Your task to perform on an android device: open app "Facebook" (install if not already installed) and go to login screen Image 0: 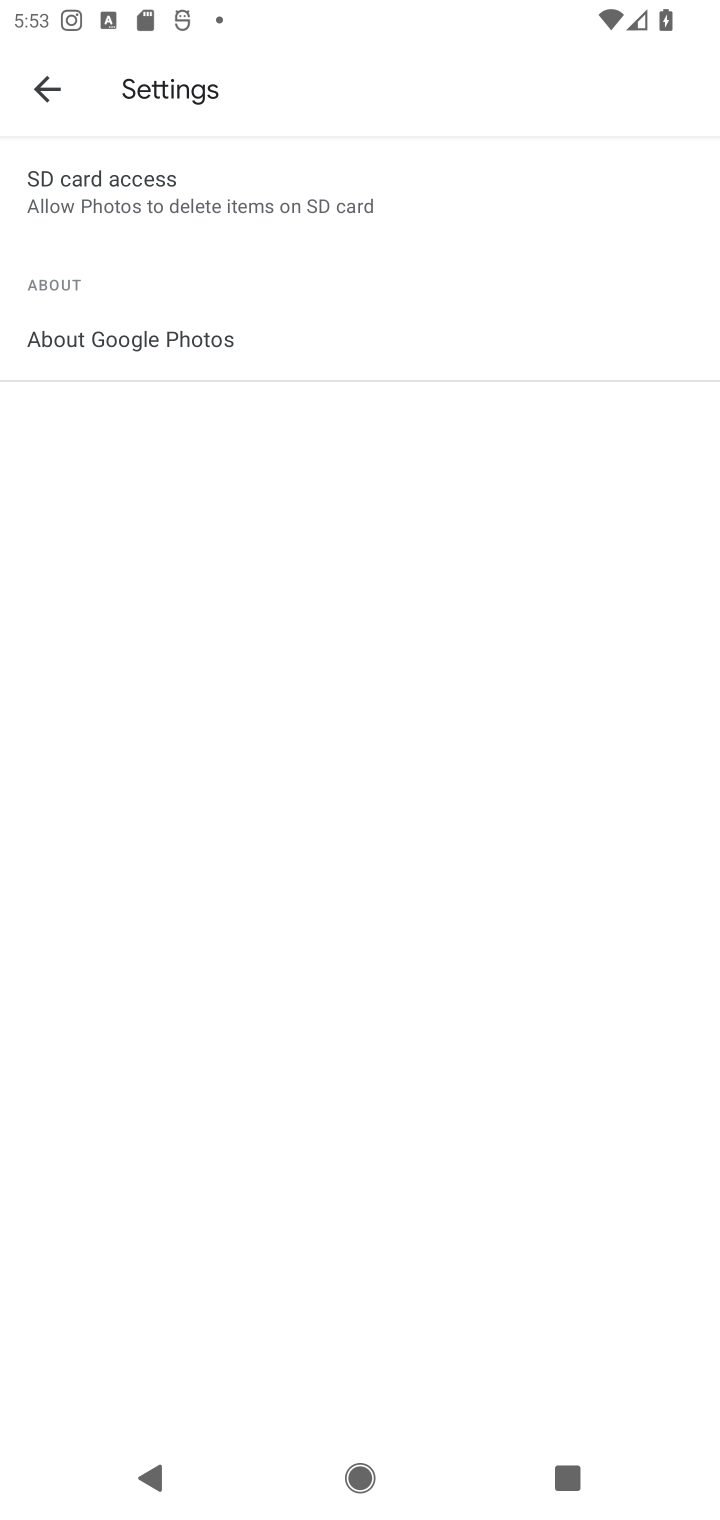
Step 0: press home button
Your task to perform on an android device: open app "Facebook" (install if not already installed) and go to login screen Image 1: 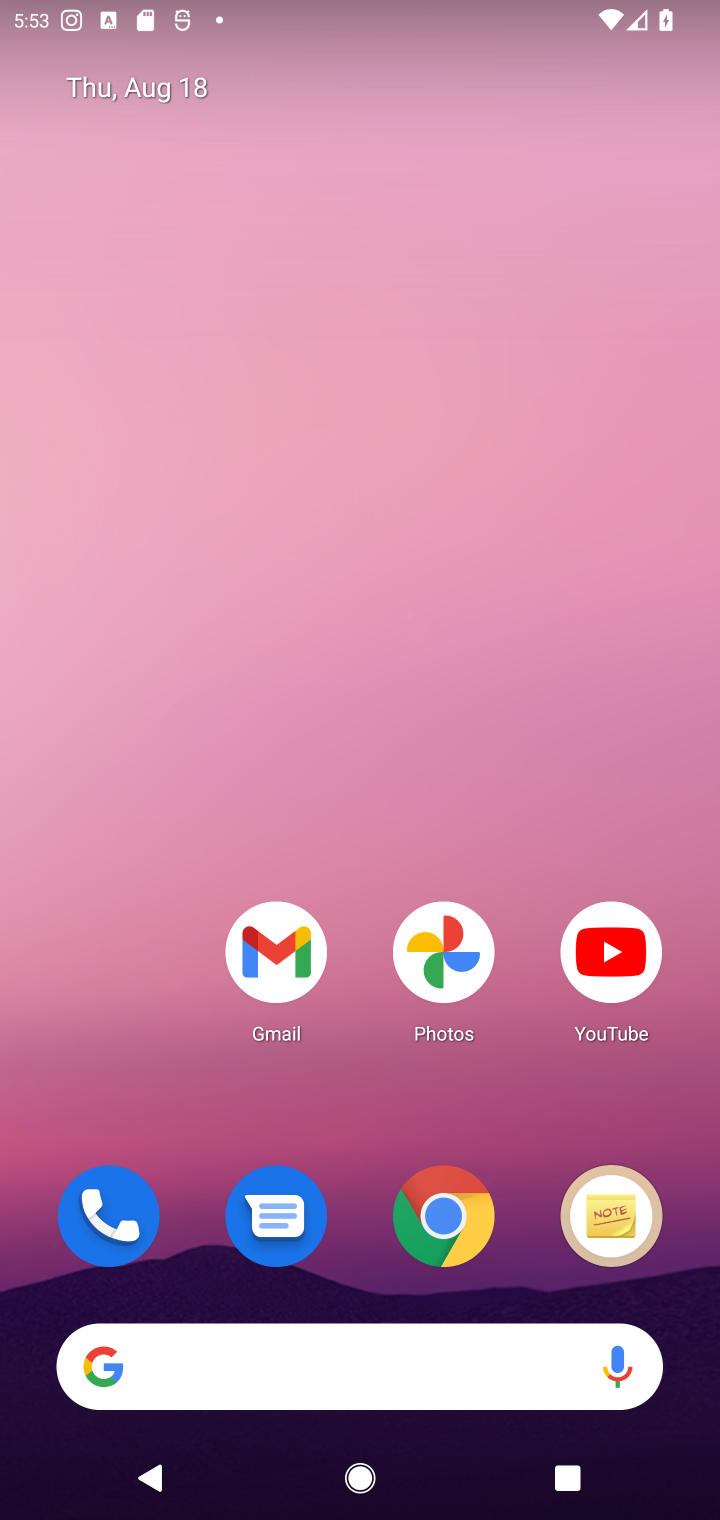
Step 1: drag from (346, 923) to (364, 272)
Your task to perform on an android device: open app "Facebook" (install if not already installed) and go to login screen Image 2: 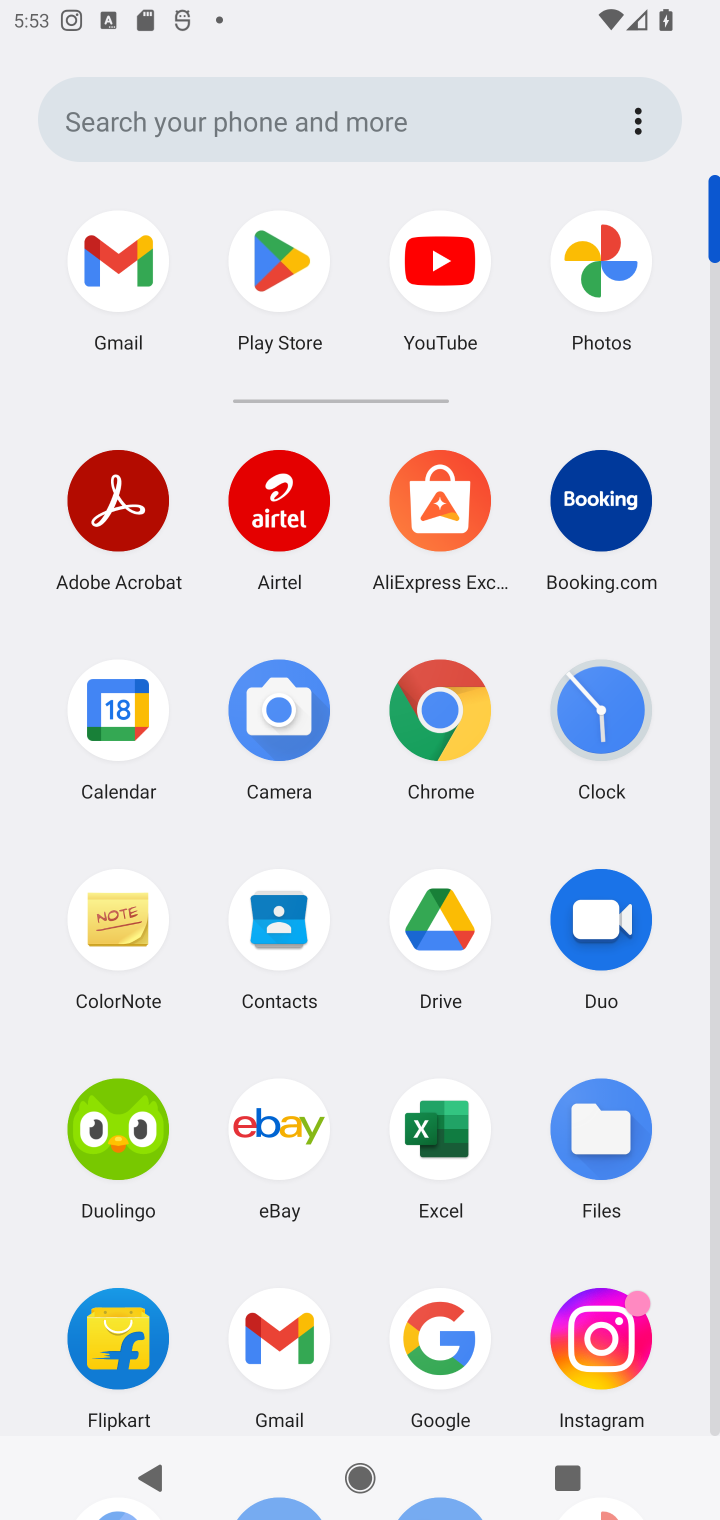
Step 2: click (304, 259)
Your task to perform on an android device: open app "Facebook" (install if not already installed) and go to login screen Image 3: 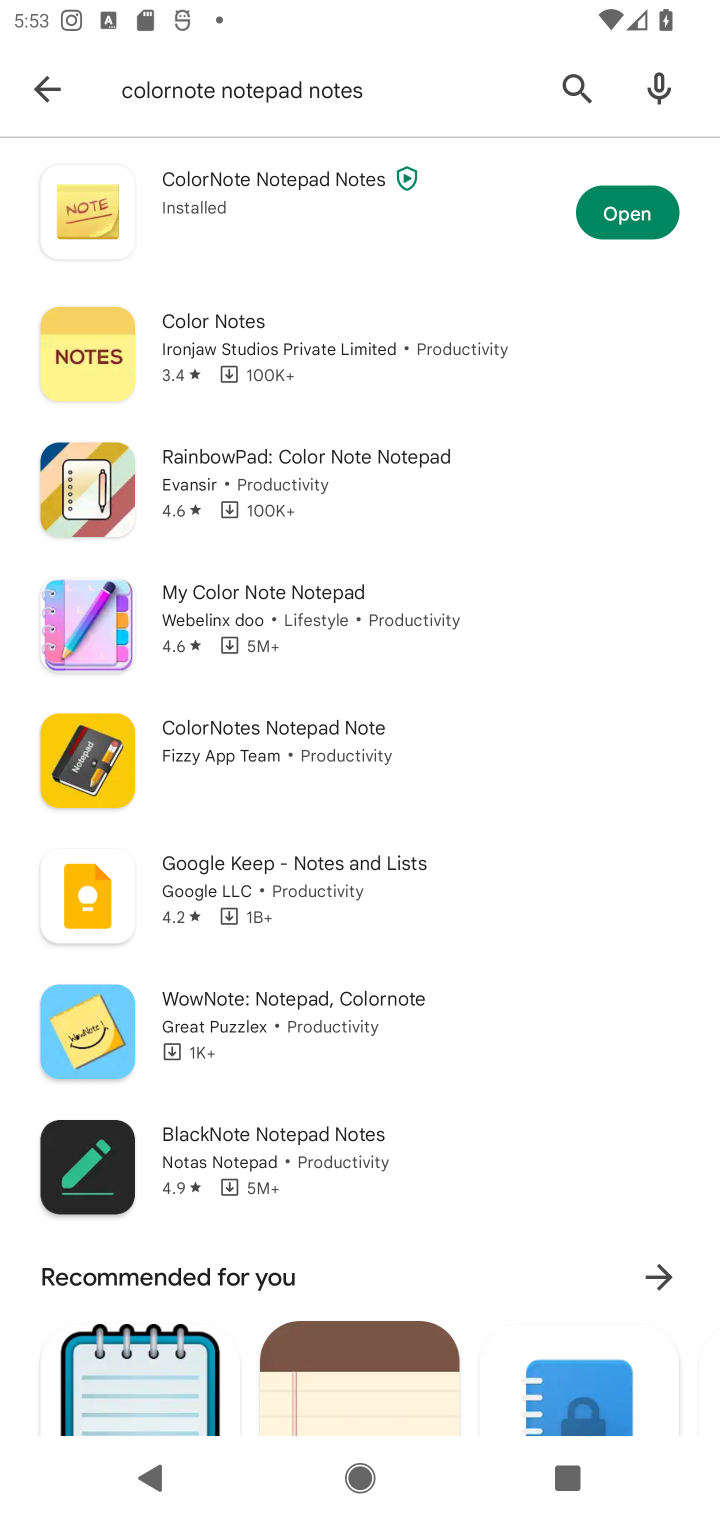
Step 3: click (590, 97)
Your task to perform on an android device: open app "Facebook" (install if not already installed) and go to login screen Image 4: 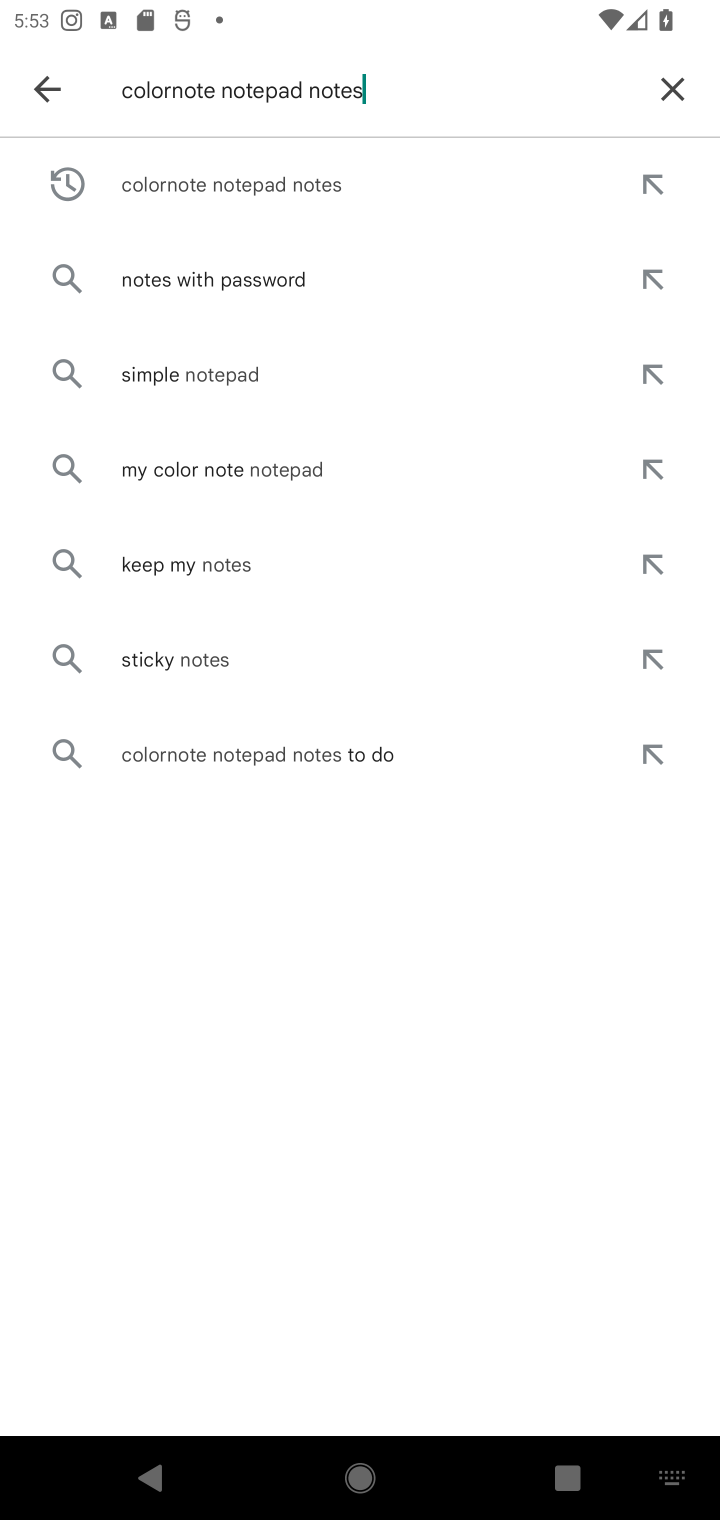
Step 4: click (652, 92)
Your task to perform on an android device: open app "Facebook" (install if not already installed) and go to login screen Image 5: 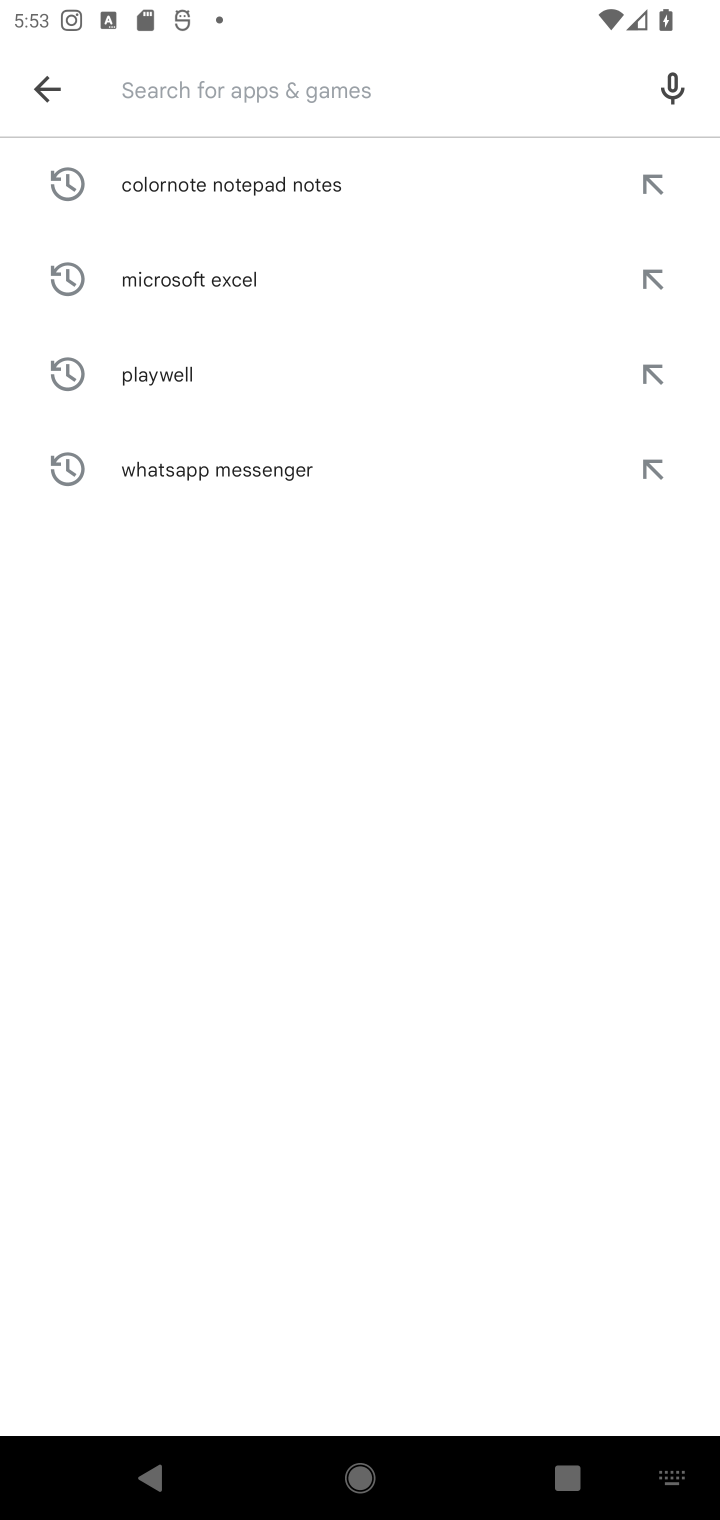
Step 5: type "Facebook"
Your task to perform on an android device: open app "Facebook" (install if not already installed) and go to login screen Image 6: 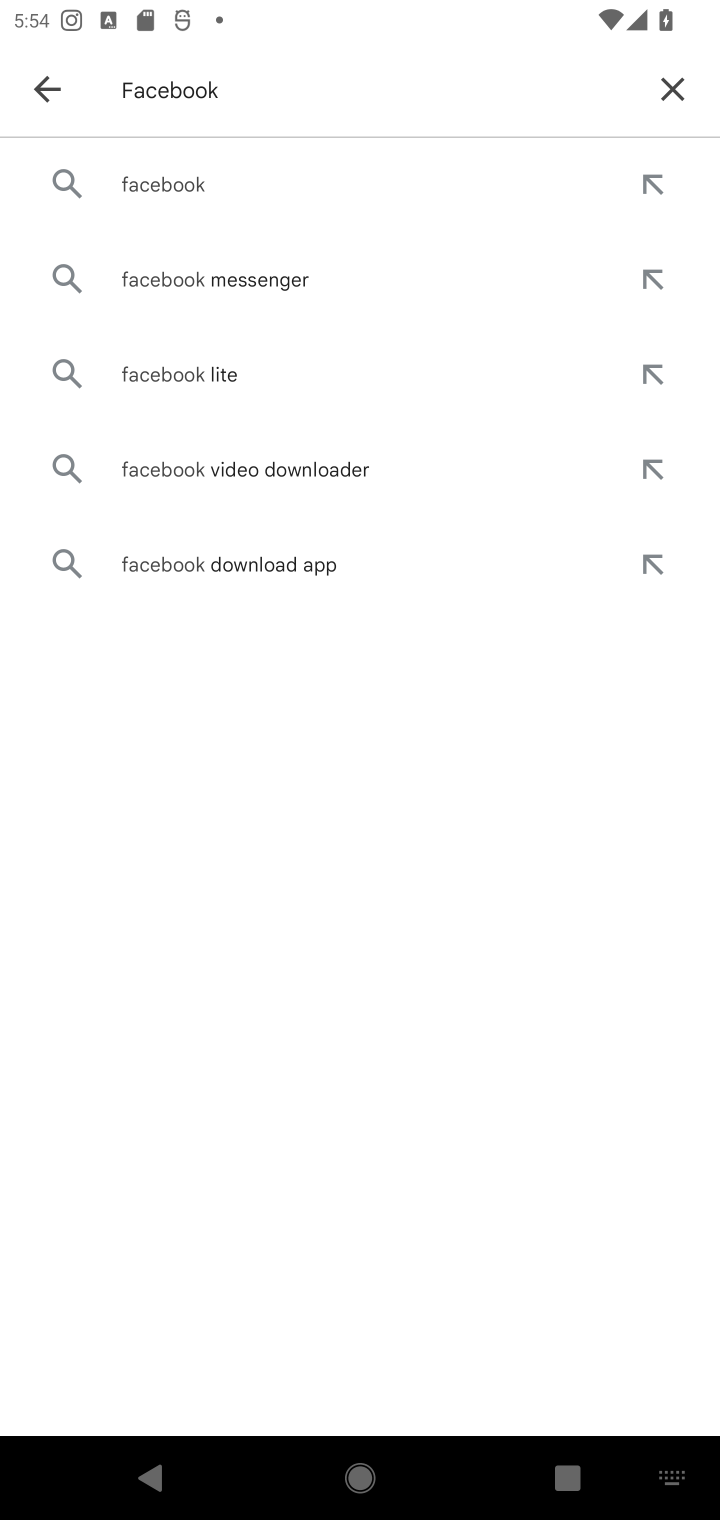
Step 6: click (310, 192)
Your task to perform on an android device: open app "Facebook" (install if not already installed) and go to login screen Image 7: 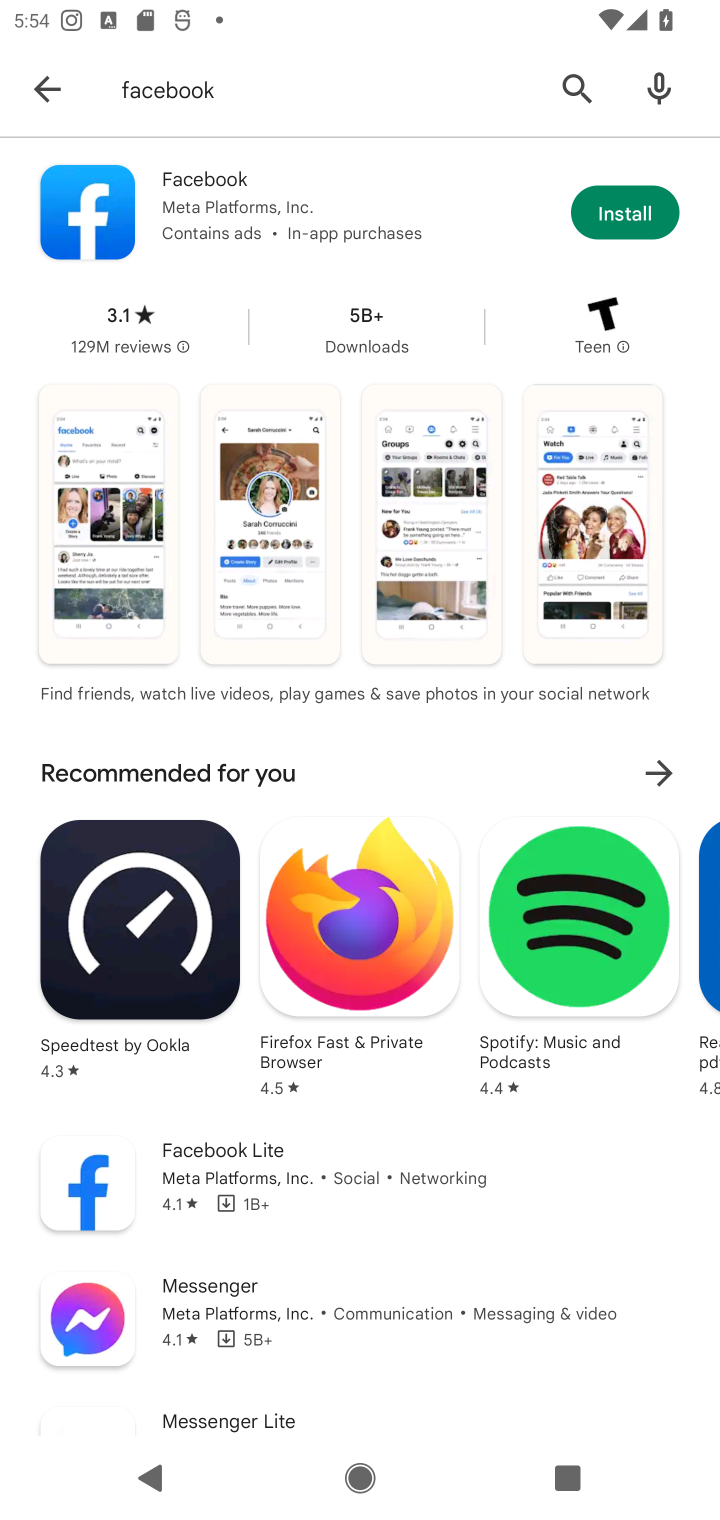
Step 7: click (634, 216)
Your task to perform on an android device: open app "Facebook" (install if not already installed) and go to login screen Image 8: 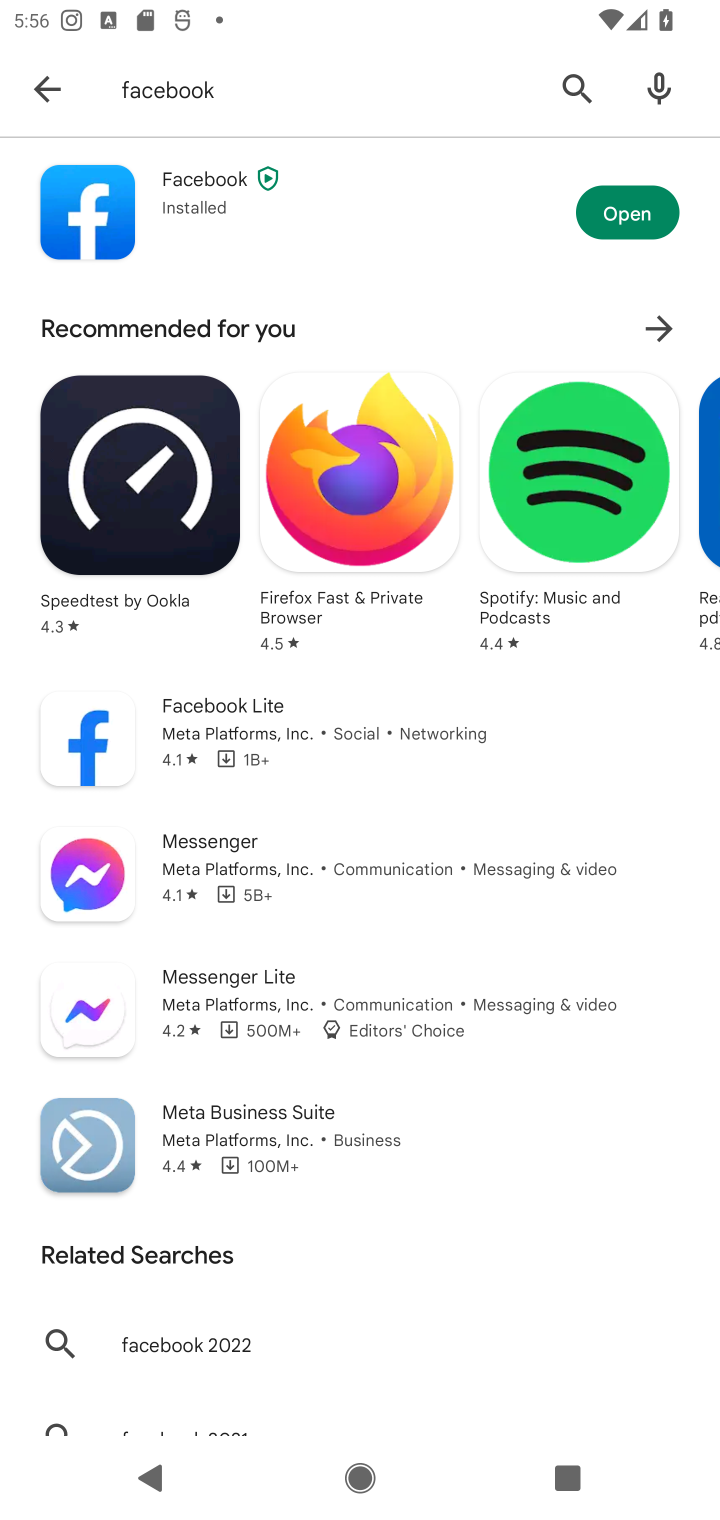
Step 8: click (656, 221)
Your task to perform on an android device: open app "Facebook" (install if not already installed) and go to login screen Image 9: 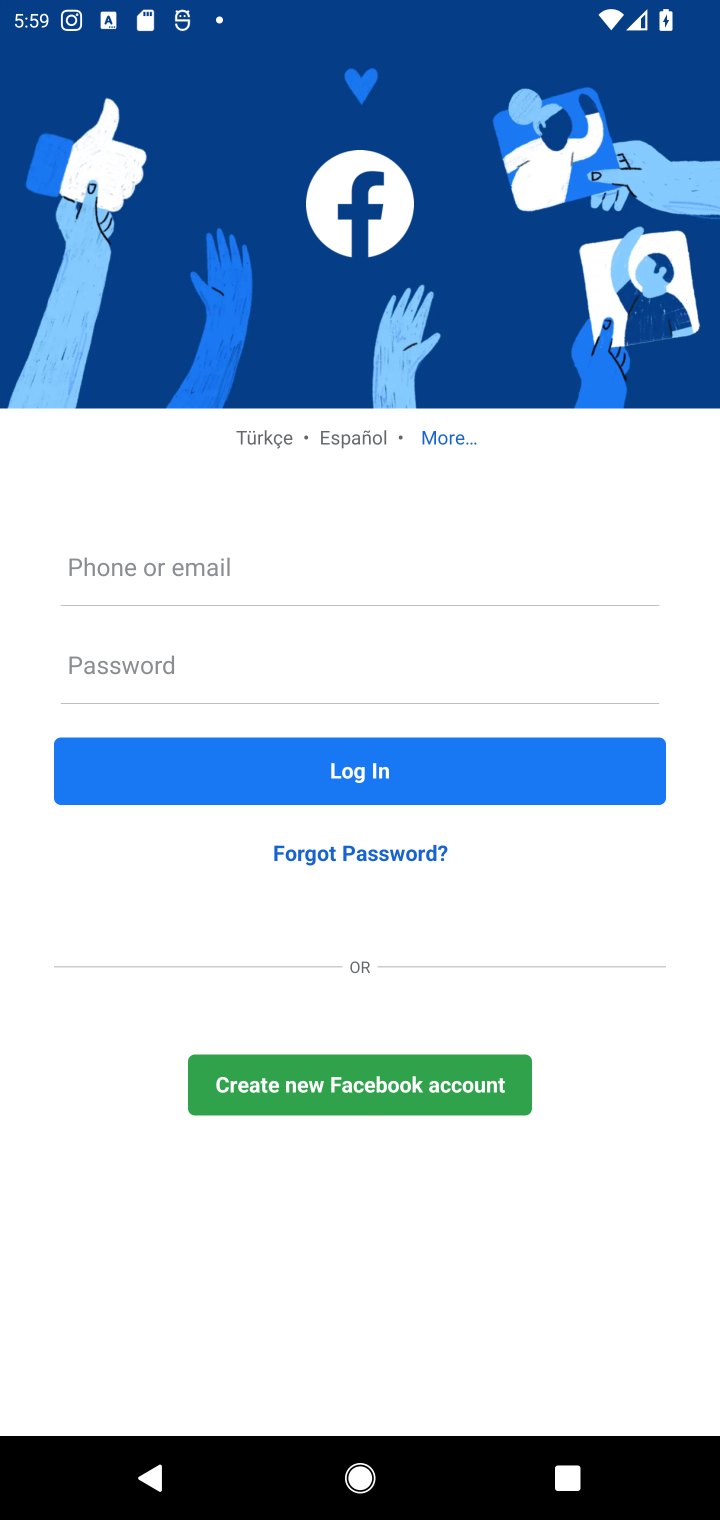
Step 9: press home button
Your task to perform on an android device: open app "Facebook" (install if not already installed) and go to login screen Image 10: 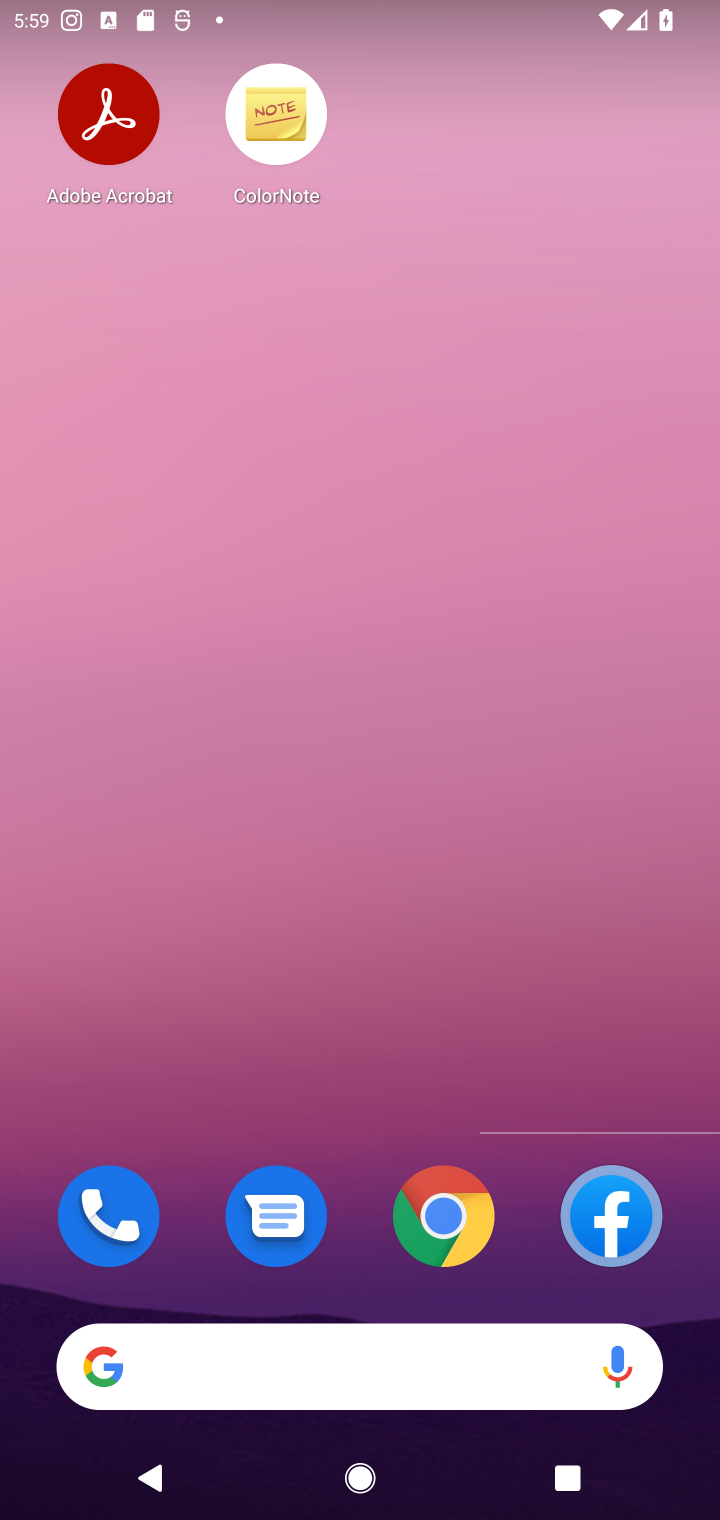
Step 10: drag from (355, 1092) to (415, 488)
Your task to perform on an android device: open app "Facebook" (install if not already installed) and go to login screen Image 11: 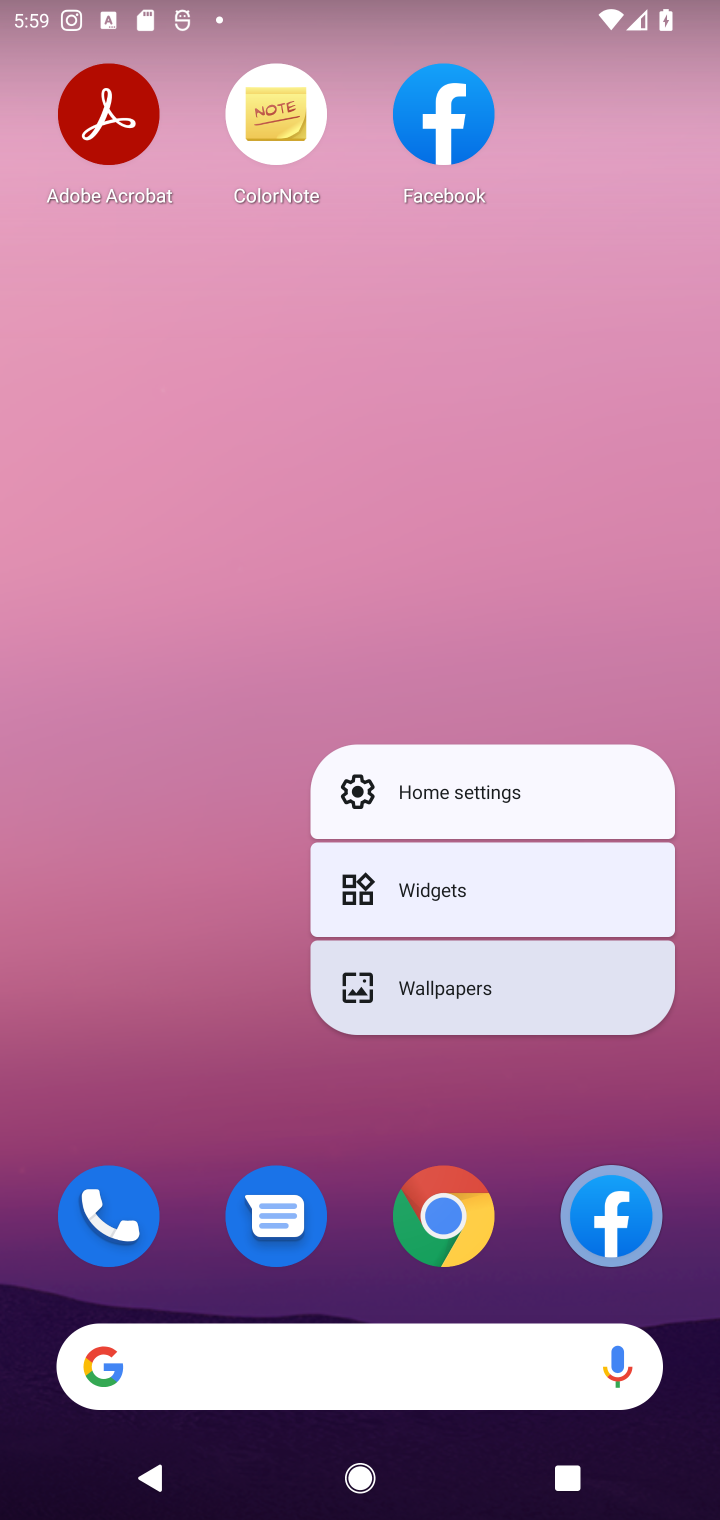
Step 11: click (380, 520)
Your task to perform on an android device: open app "Facebook" (install if not already installed) and go to login screen Image 12: 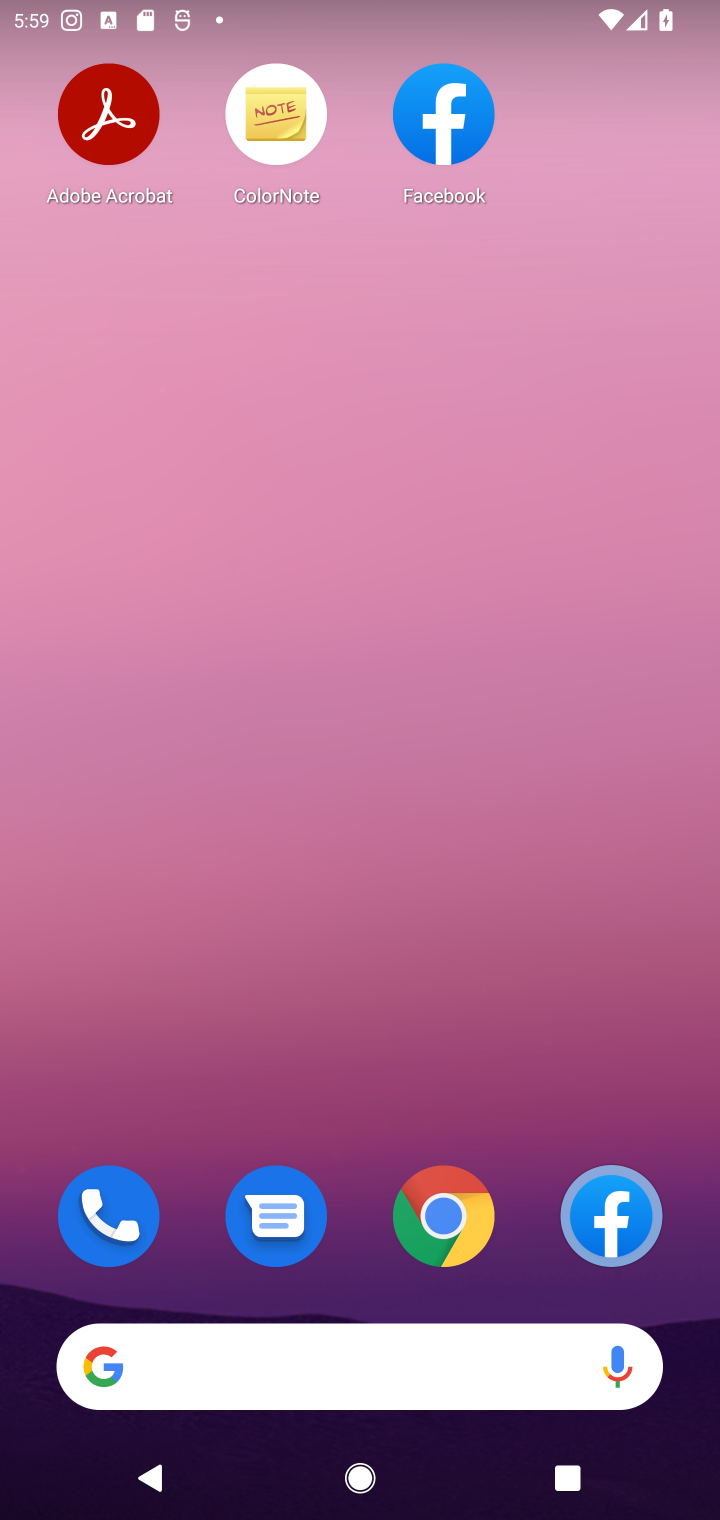
Step 12: drag from (360, 1052) to (443, 142)
Your task to perform on an android device: open app "Facebook" (install if not already installed) and go to login screen Image 13: 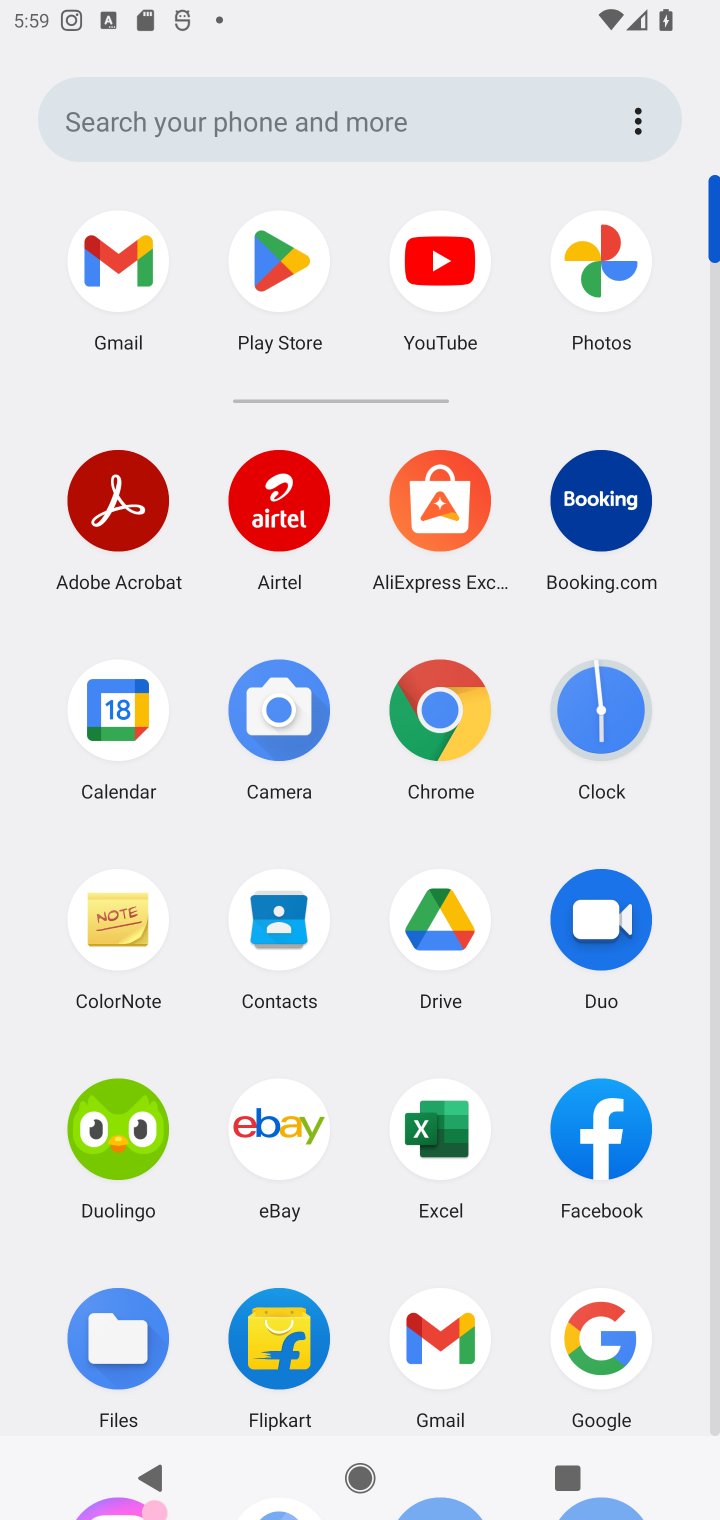
Step 13: click (319, 260)
Your task to perform on an android device: open app "Facebook" (install if not already installed) and go to login screen Image 14: 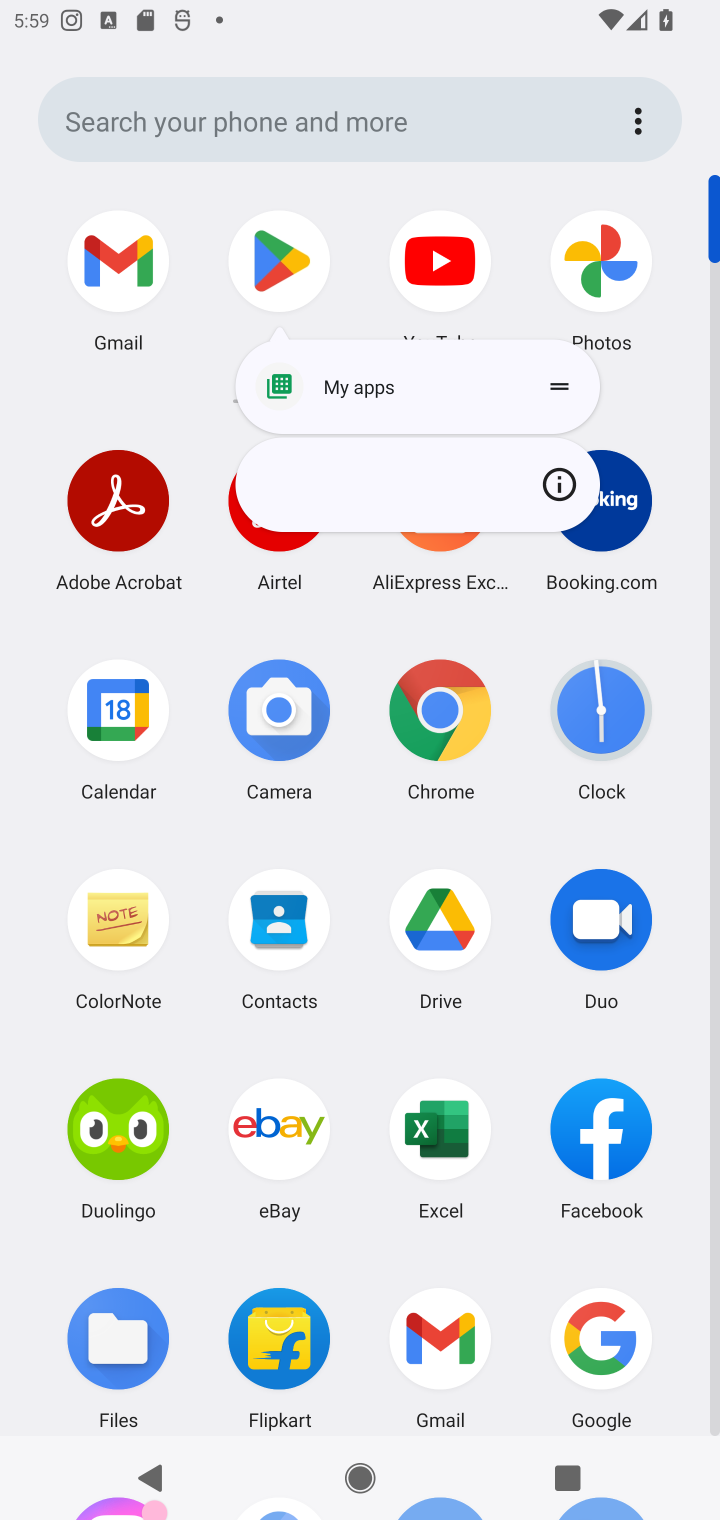
Step 14: click (297, 253)
Your task to perform on an android device: open app "Facebook" (install if not already installed) and go to login screen Image 15: 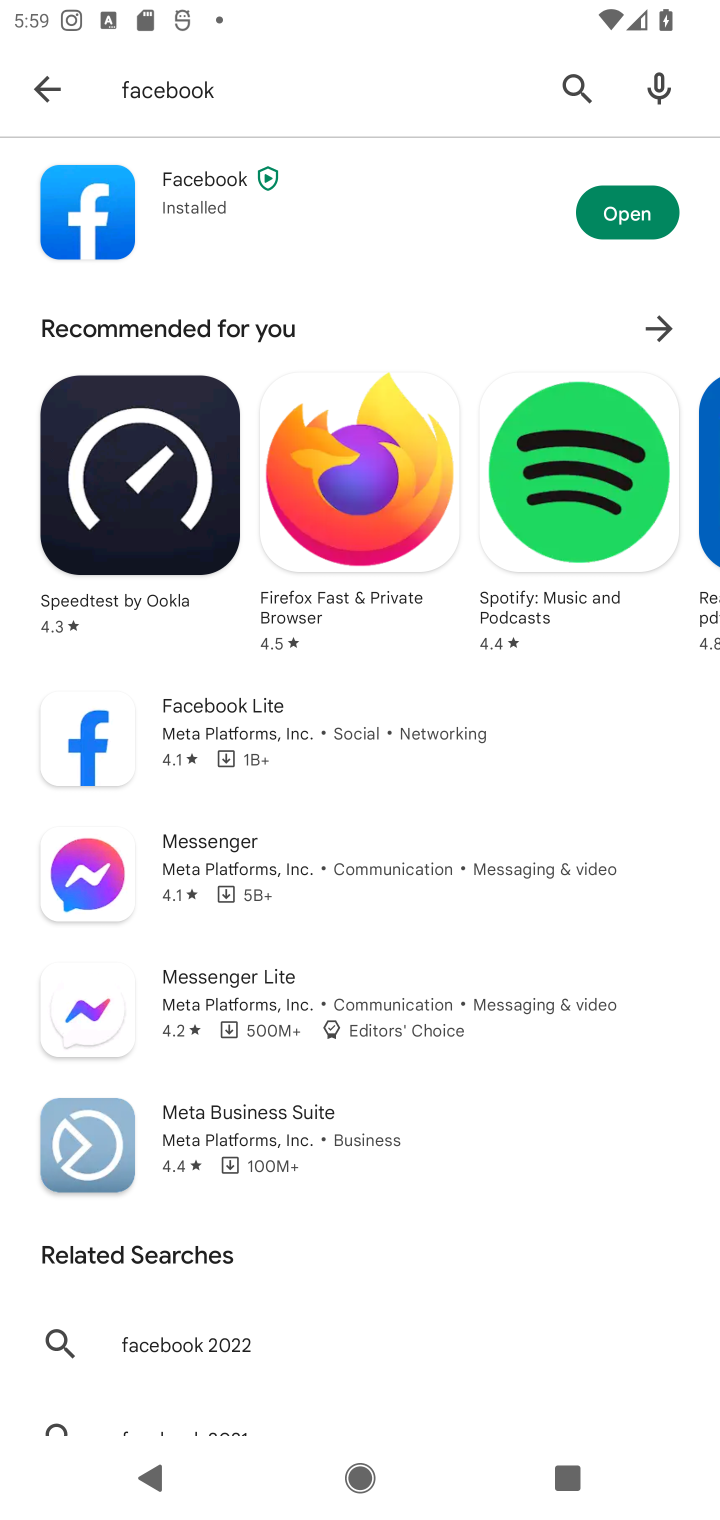
Step 15: click (593, 82)
Your task to perform on an android device: open app "Facebook" (install if not already installed) and go to login screen Image 16: 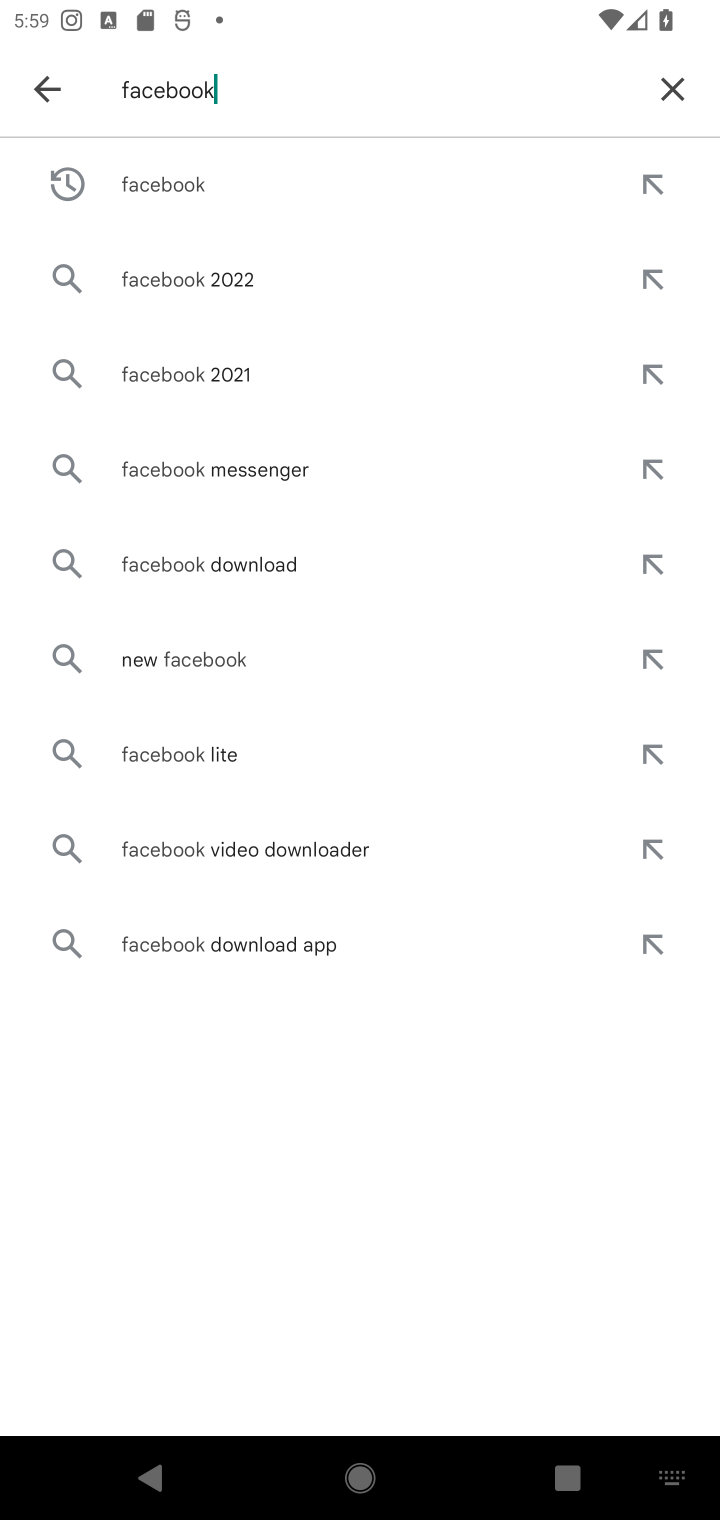
Step 16: click (344, 173)
Your task to perform on an android device: open app "Facebook" (install if not already installed) and go to login screen Image 17: 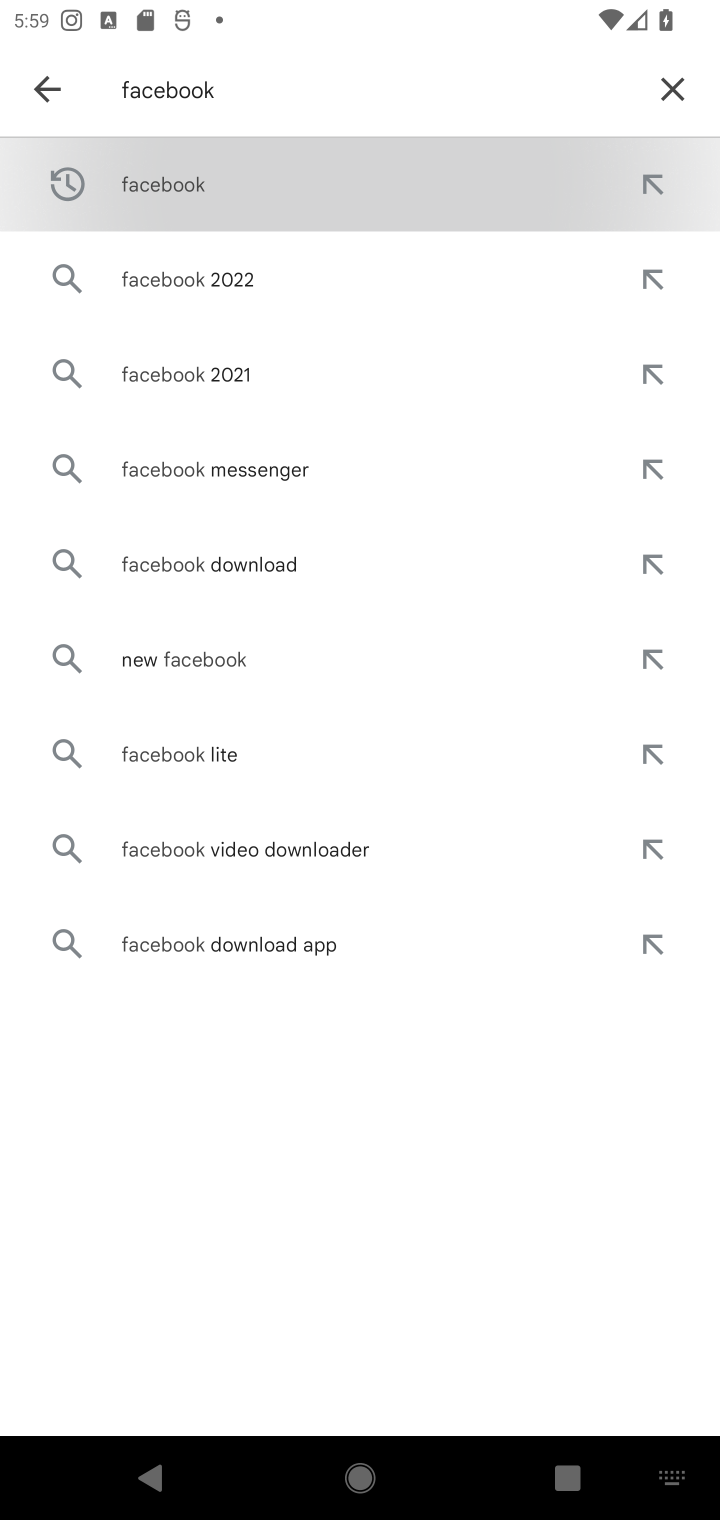
Step 17: task complete